Your task to perform on an android device: change the clock display to digital Image 0: 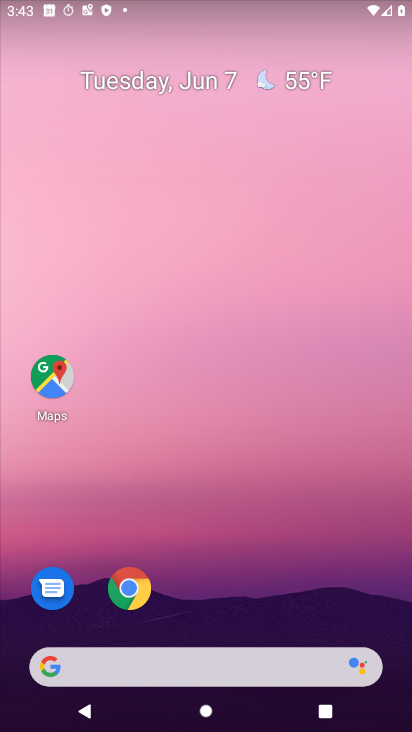
Step 0: drag from (250, 613) to (276, 39)
Your task to perform on an android device: change the clock display to digital Image 1: 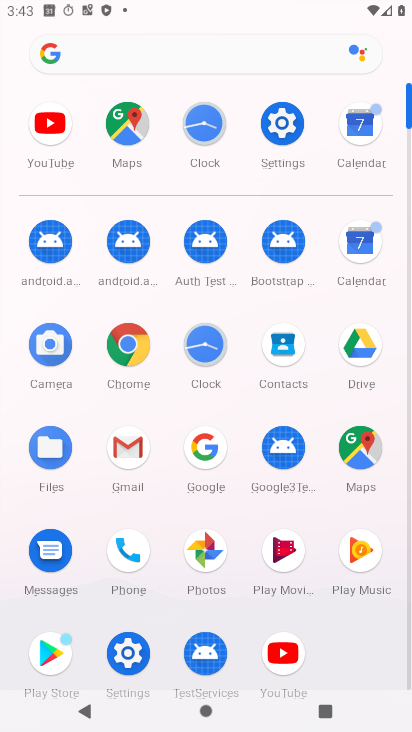
Step 1: click (198, 335)
Your task to perform on an android device: change the clock display to digital Image 2: 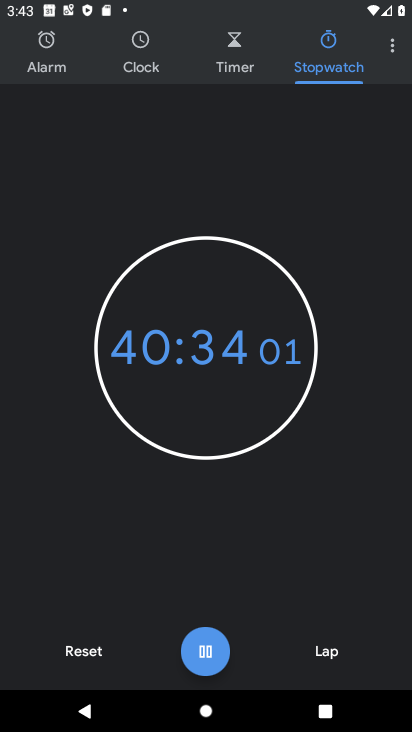
Step 2: click (392, 40)
Your task to perform on an android device: change the clock display to digital Image 3: 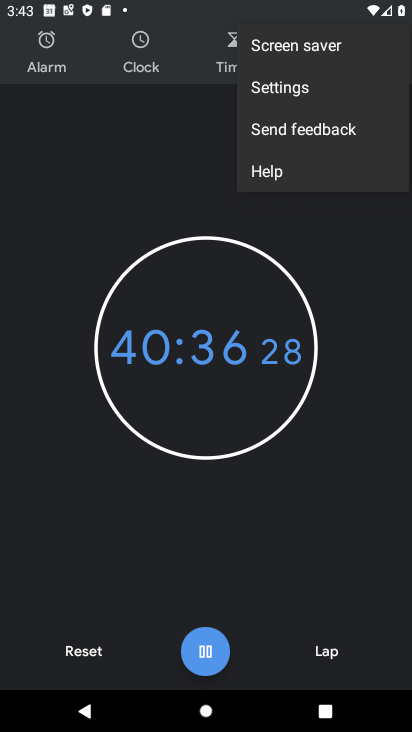
Step 3: click (263, 89)
Your task to perform on an android device: change the clock display to digital Image 4: 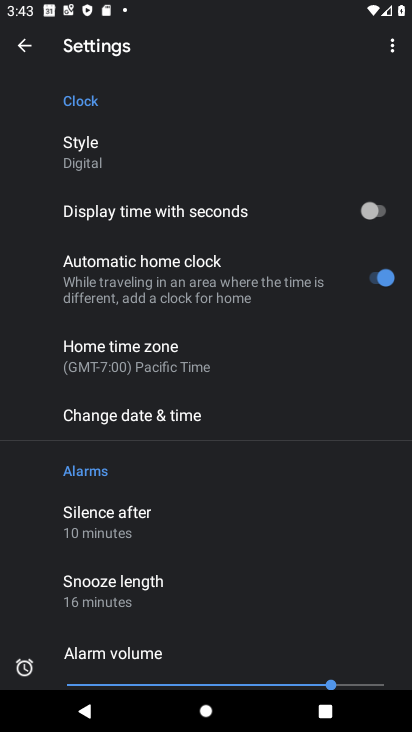
Step 4: click (89, 160)
Your task to perform on an android device: change the clock display to digital Image 5: 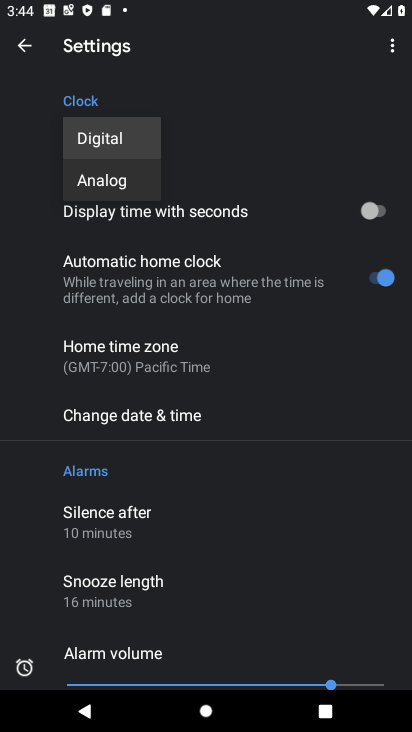
Step 5: task complete